Your task to perform on an android device: turn on improve location accuracy Image 0: 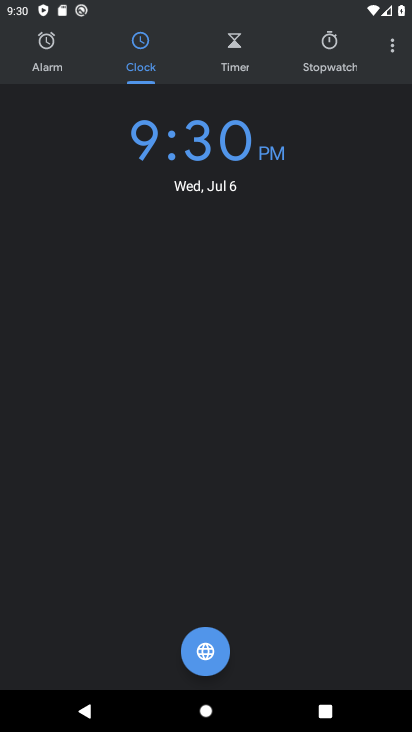
Step 0: press home button
Your task to perform on an android device: turn on improve location accuracy Image 1: 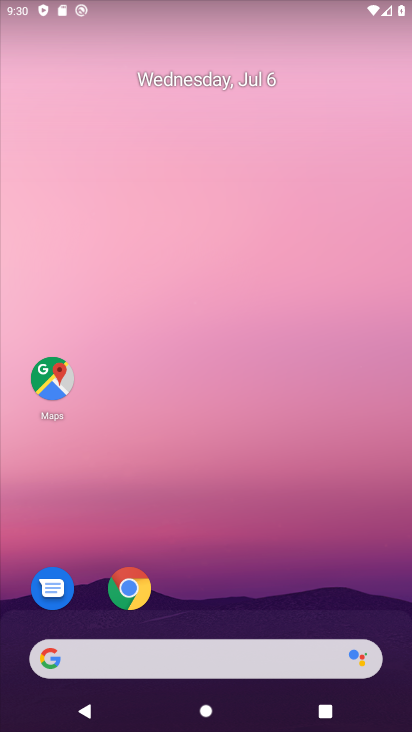
Step 1: drag from (154, 620) to (247, 41)
Your task to perform on an android device: turn on improve location accuracy Image 2: 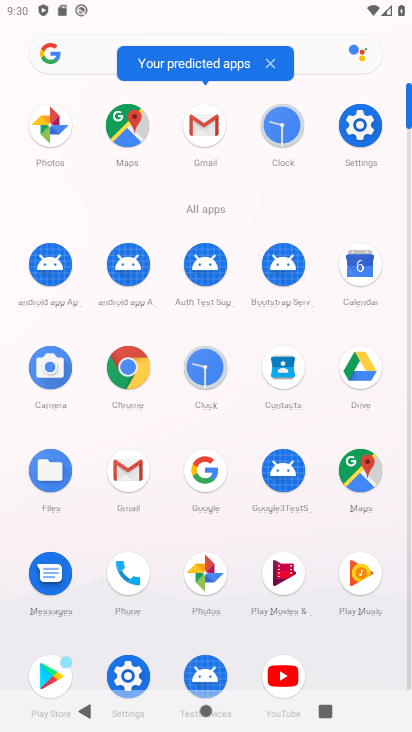
Step 2: drag from (144, 662) to (233, 267)
Your task to perform on an android device: turn on improve location accuracy Image 3: 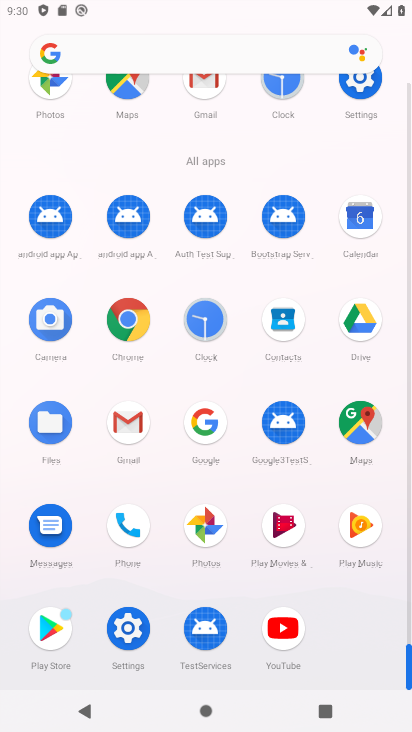
Step 3: click (123, 613)
Your task to perform on an android device: turn on improve location accuracy Image 4: 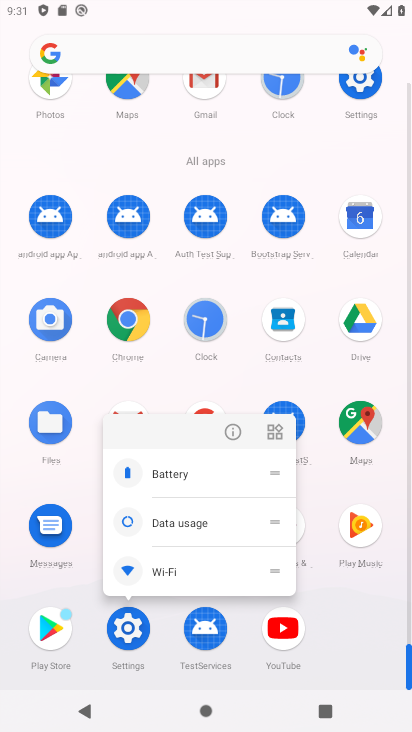
Step 4: click (118, 625)
Your task to perform on an android device: turn on improve location accuracy Image 5: 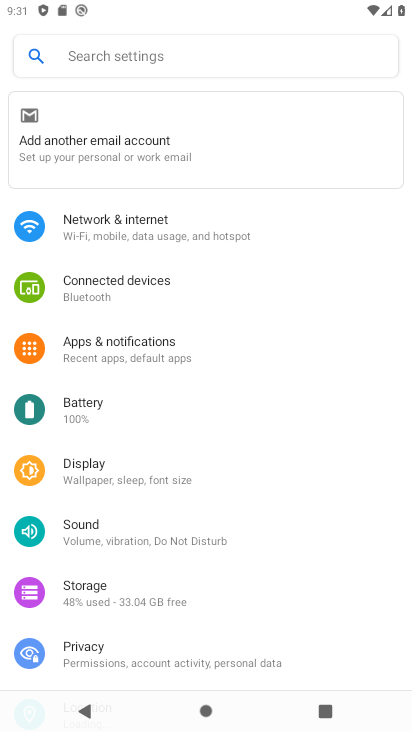
Step 5: drag from (94, 570) to (172, 171)
Your task to perform on an android device: turn on improve location accuracy Image 6: 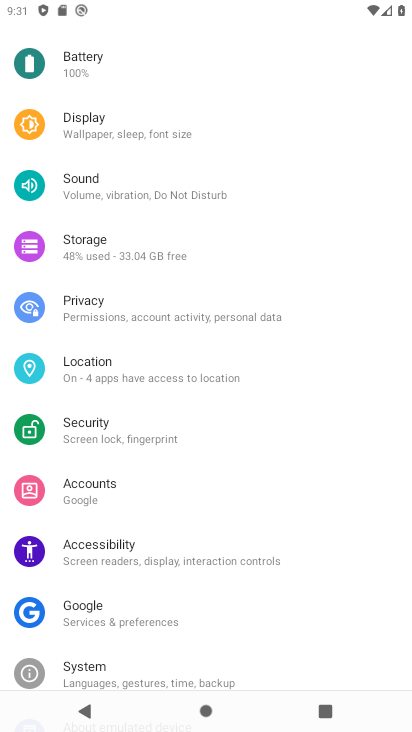
Step 6: drag from (166, 606) to (181, 479)
Your task to perform on an android device: turn on improve location accuracy Image 7: 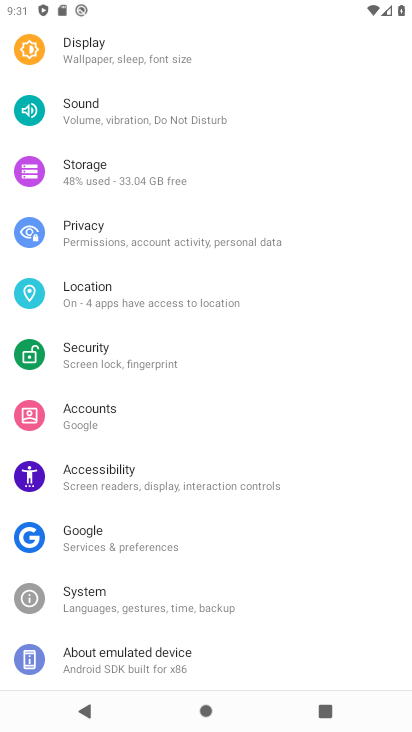
Step 7: drag from (168, 534) to (220, 257)
Your task to perform on an android device: turn on improve location accuracy Image 8: 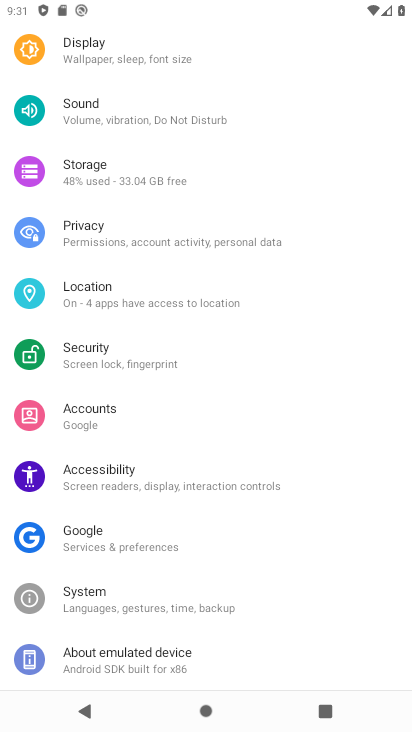
Step 8: drag from (160, 564) to (204, 201)
Your task to perform on an android device: turn on improve location accuracy Image 9: 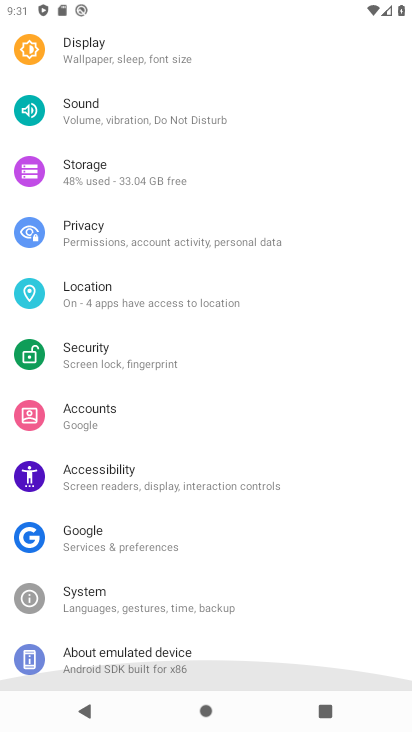
Step 9: click (152, 303)
Your task to perform on an android device: turn on improve location accuracy Image 10: 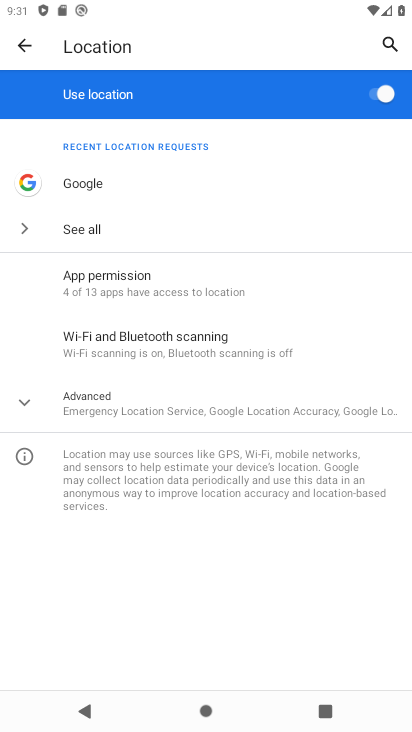
Step 10: click (153, 403)
Your task to perform on an android device: turn on improve location accuracy Image 11: 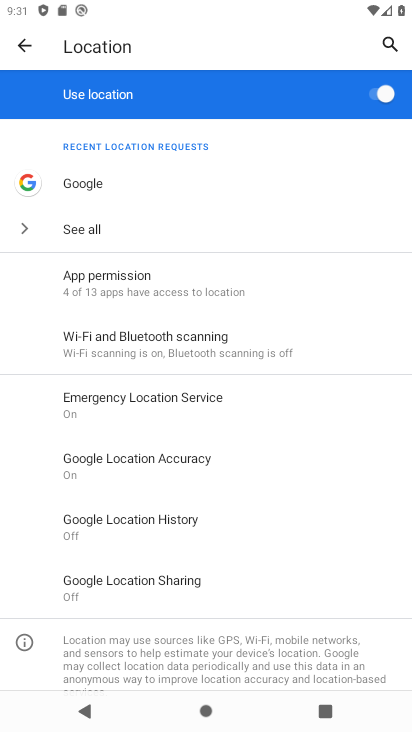
Step 11: click (204, 472)
Your task to perform on an android device: turn on improve location accuracy Image 12: 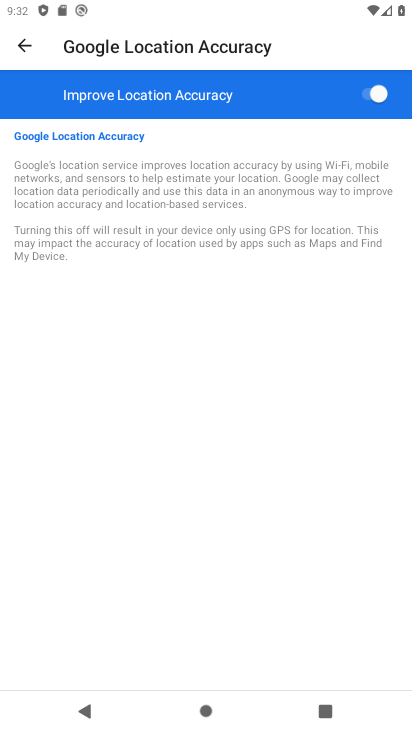
Step 12: task complete